Your task to perform on an android device: uninstall "Instagram" Image 0: 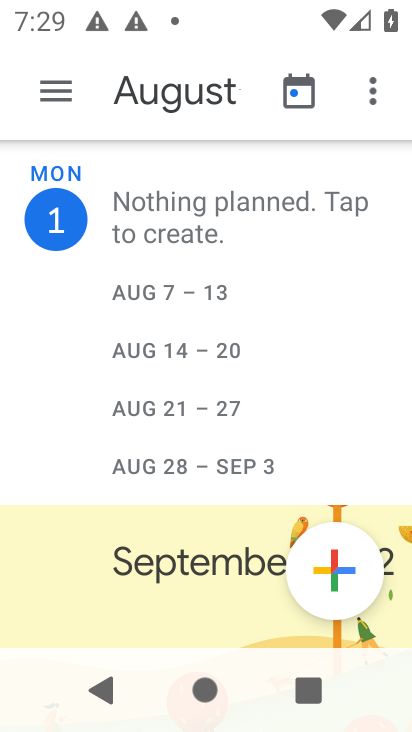
Step 0: press home button
Your task to perform on an android device: uninstall "Instagram" Image 1: 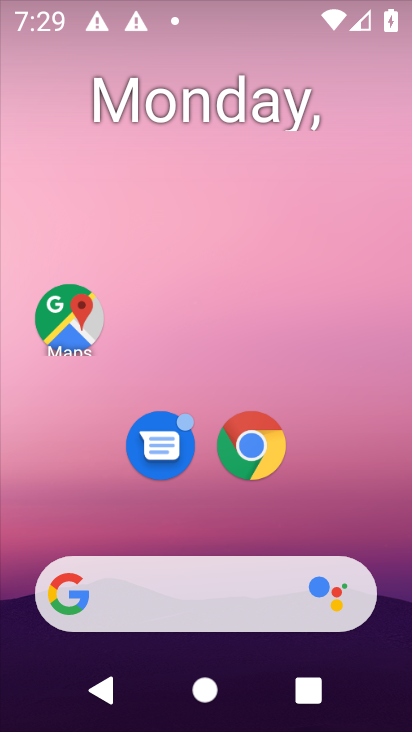
Step 1: drag from (399, 652) to (295, 51)
Your task to perform on an android device: uninstall "Instagram" Image 2: 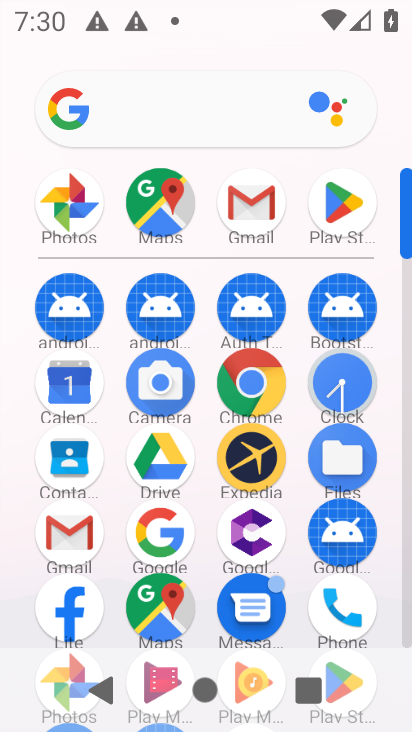
Step 2: click (336, 197)
Your task to perform on an android device: uninstall "Instagram" Image 3: 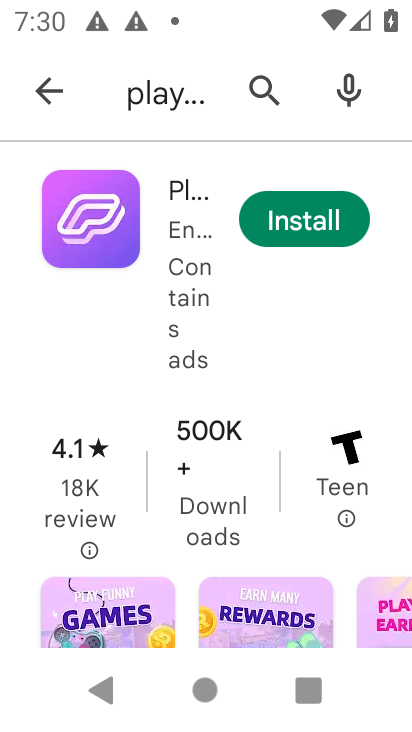
Step 3: press back button
Your task to perform on an android device: uninstall "Instagram" Image 4: 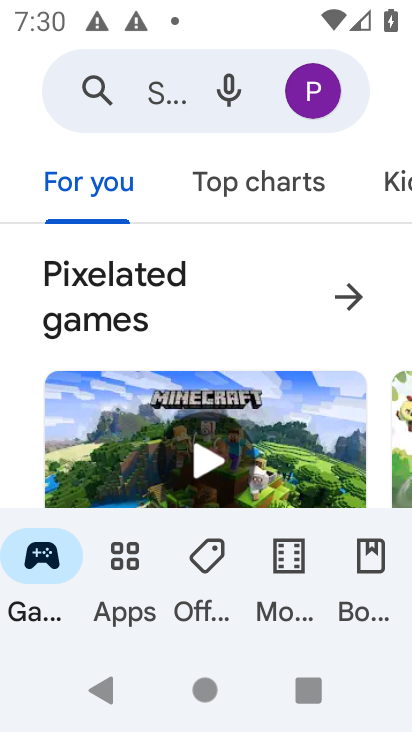
Step 4: click (148, 96)
Your task to perform on an android device: uninstall "Instagram" Image 5: 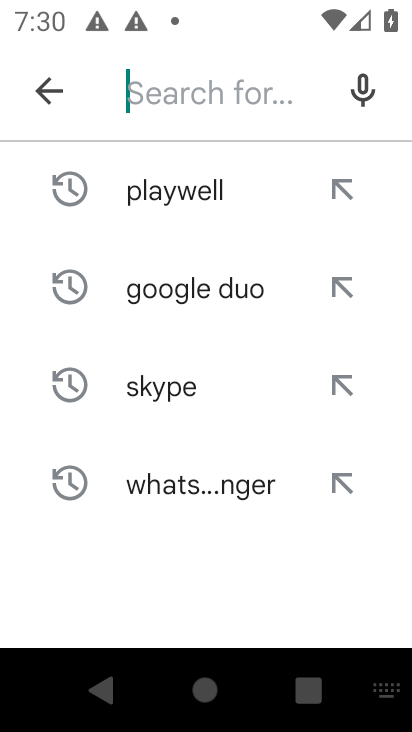
Step 5: type "Instagram"
Your task to perform on an android device: uninstall "Instagram" Image 6: 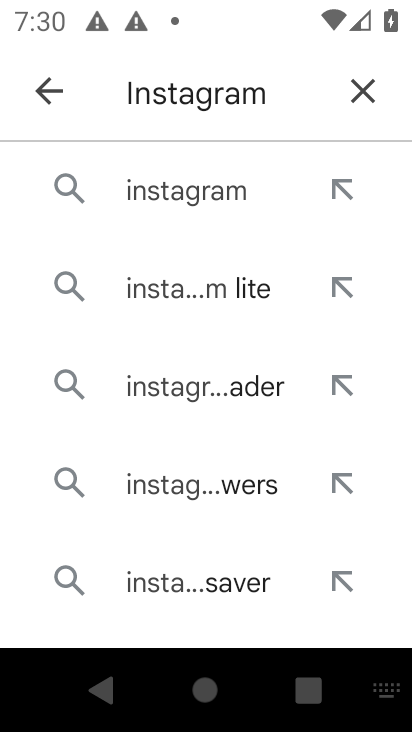
Step 6: click (182, 203)
Your task to perform on an android device: uninstall "Instagram" Image 7: 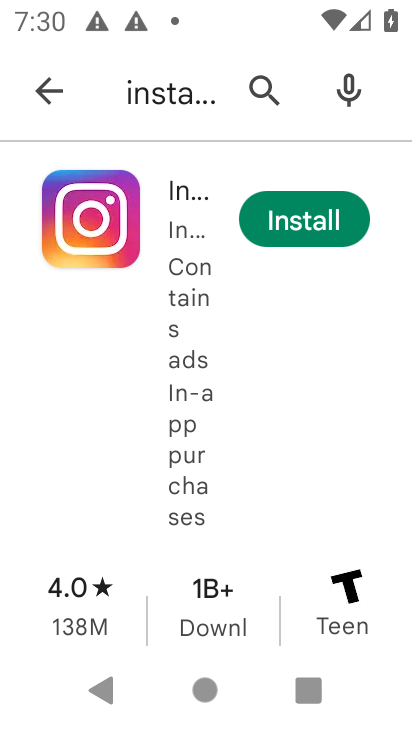
Step 7: task complete